Your task to perform on an android device: Open Yahoo.com Image 0: 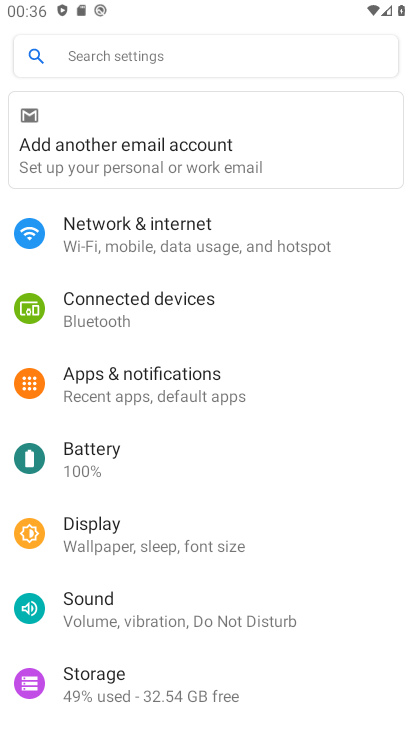
Step 0: press home button
Your task to perform on an android device: Open Yahoo.com Image 1: 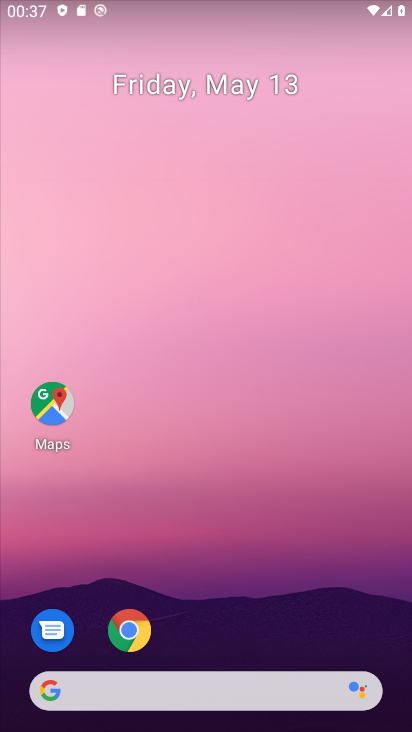
Step 1: drag from (225, 724) to (247, 239)
Your task to perform on an android device: Open Yahoo.com Image 2: 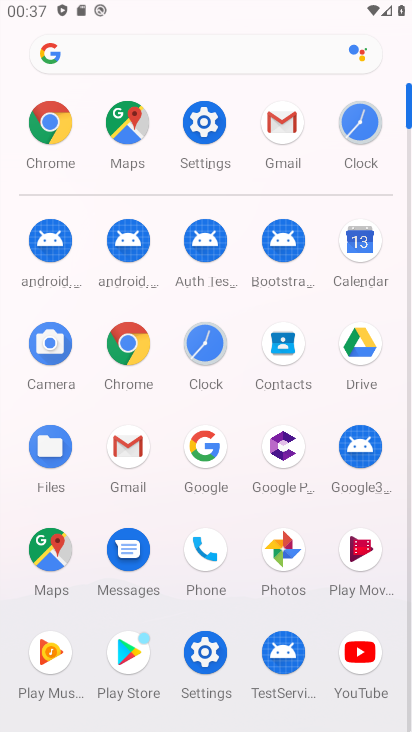
Step 2: click (58, 128)
Your task to perform on an android device: Open Yahoo.com Image 3: 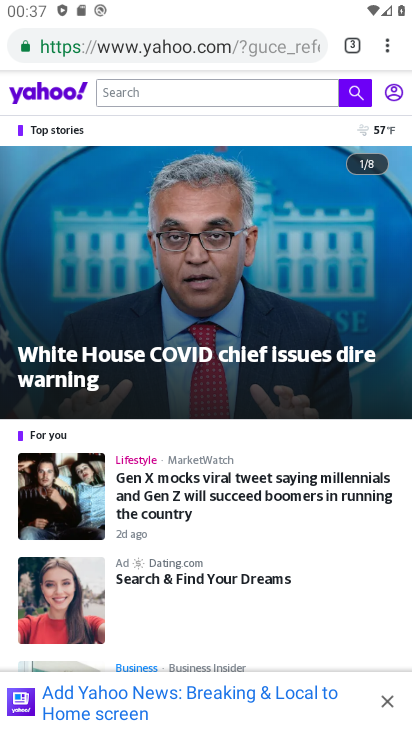
Step 3: click (253, 49)
Your task to perform on an android device: Open Yahoo.com Image 4: 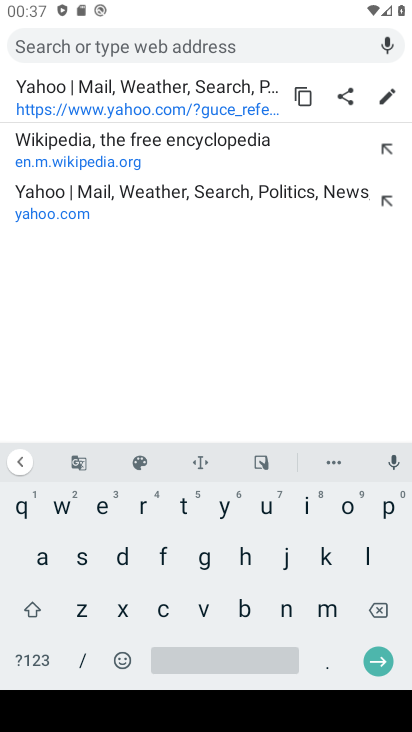
Step 4: click (100, 103)
Your task to perform on an android device: Open Yahoo.com Image 5: 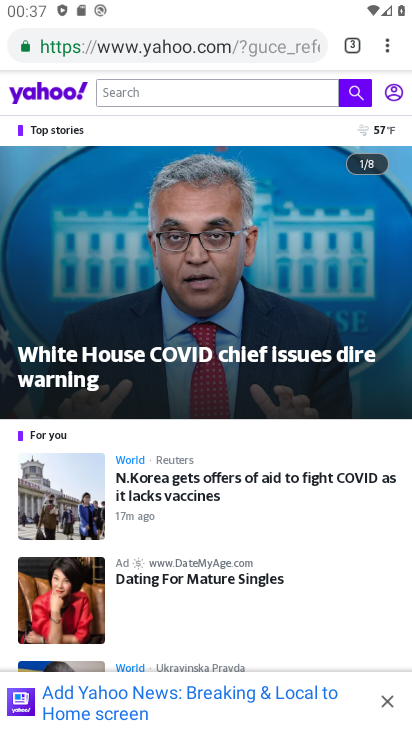
Step 5: task complete